Your task to perform on an android device: turn off location history Image 0: 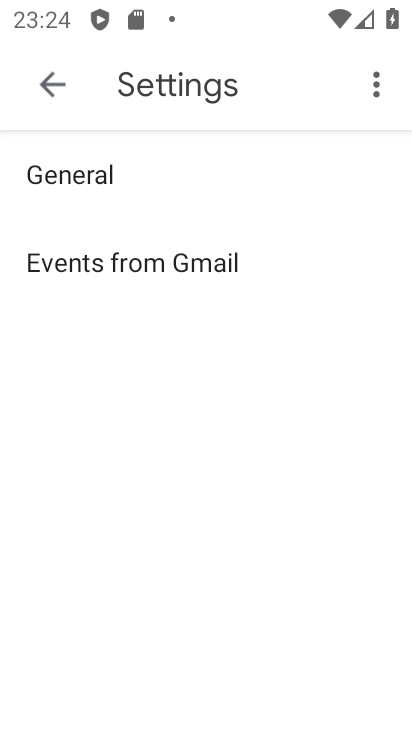
Step 0: press home button
Your task to perform on an android device: turn off location history Image 1: 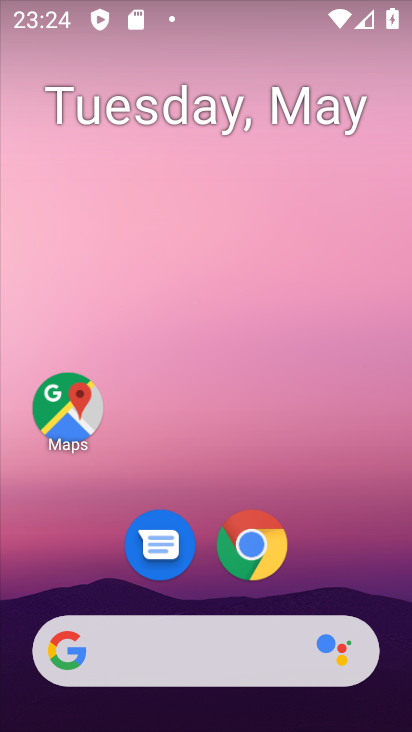
Step 1: drag from (207, 588) to (222, 116)
Your task to perform on an android device: turn off location history Image 2: 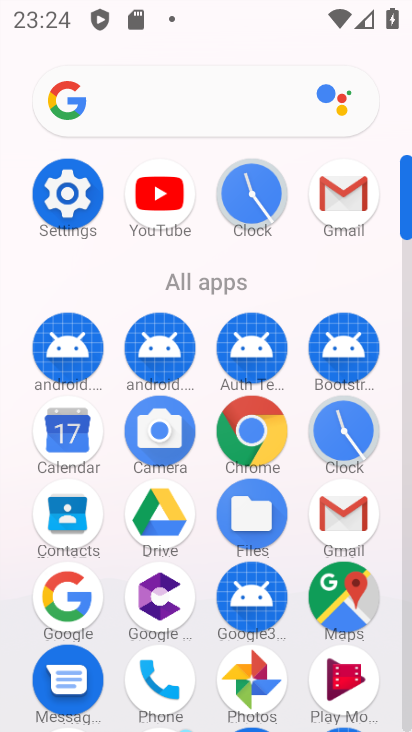
Step 2: click (74, 193)
Your task to perform on an android device: turn off location history Image 3: 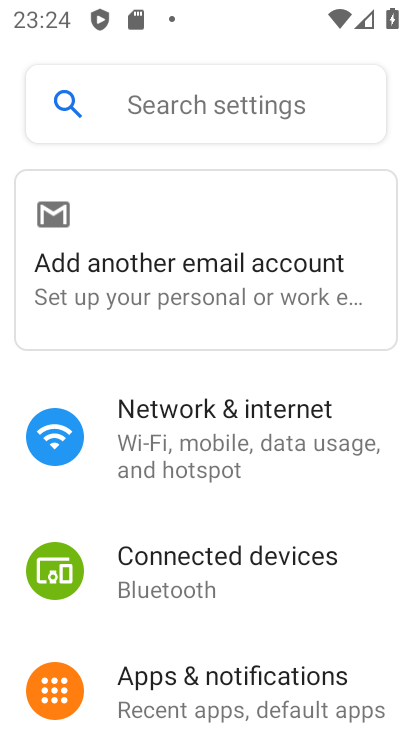
Step 3: drag from (210, 605) to (245, 154)
Your task to perform on an android device: turn off location history Image 4: 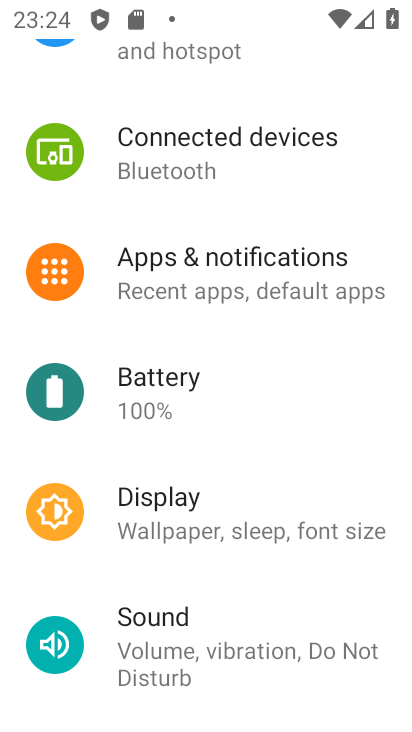
Step 4: drag from (217, 603) to (284, 154)
Your task to perform on an android device: turn off location history Image 5: 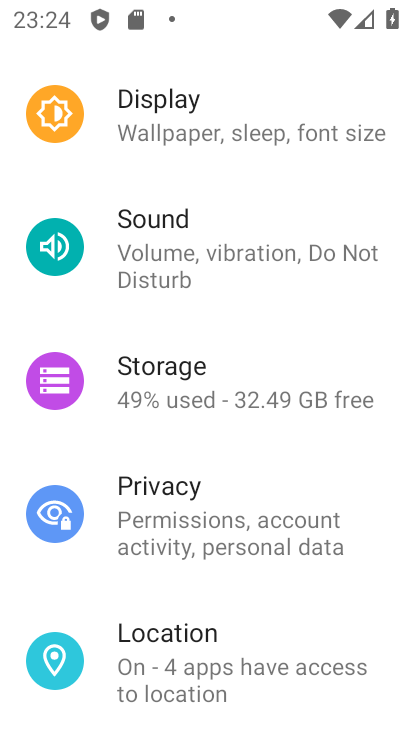
Step 5: click (184, 676)
Your task to perform on an android device: turn off location history Image 6: 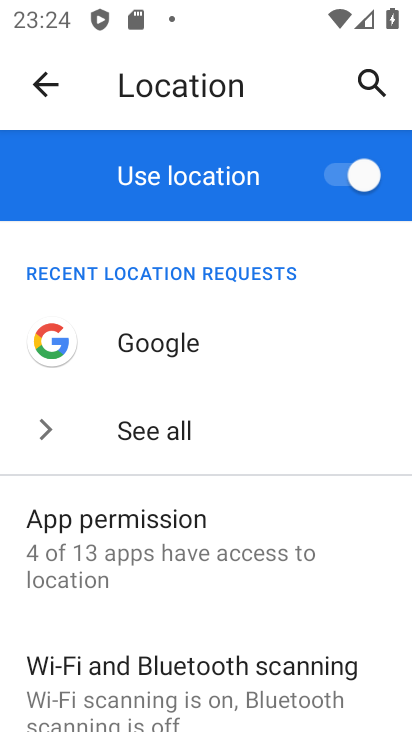
Step 6: drag from (217, 492) to (253, 198)
Your task to perform on an android device: turn off location history Image 7: 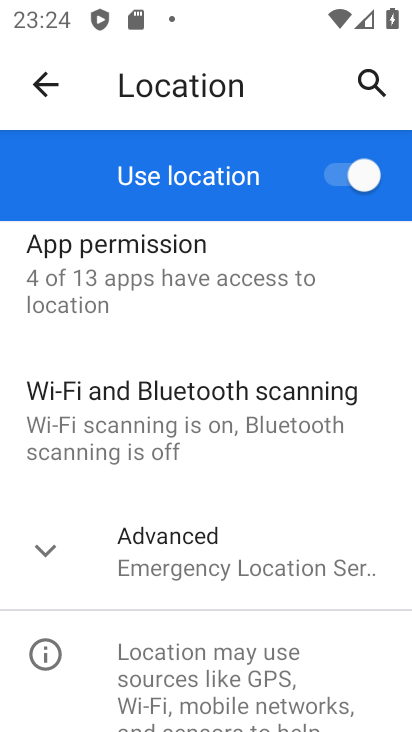
Step 7: click (42, 547)
Your task to perform on an android device: turn off location history Image 8: 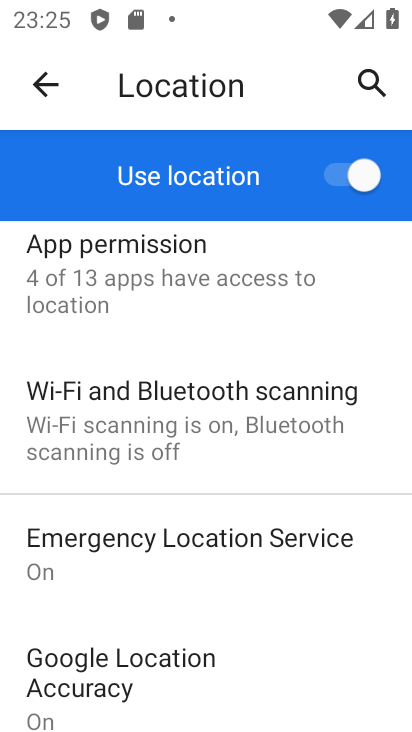
Step 8: drag from (196, 682) to (223, 429)
Your task to perform on an android device: turn off location history Image 9: 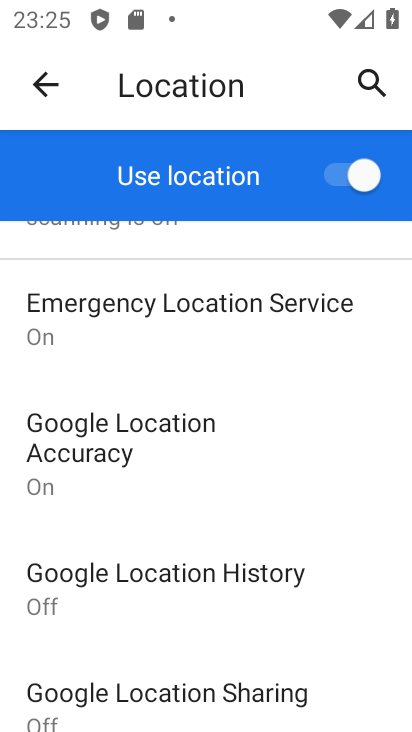
Step 9: click (158, 573)
Your task to perform on an android device: turn off location history Image 10: 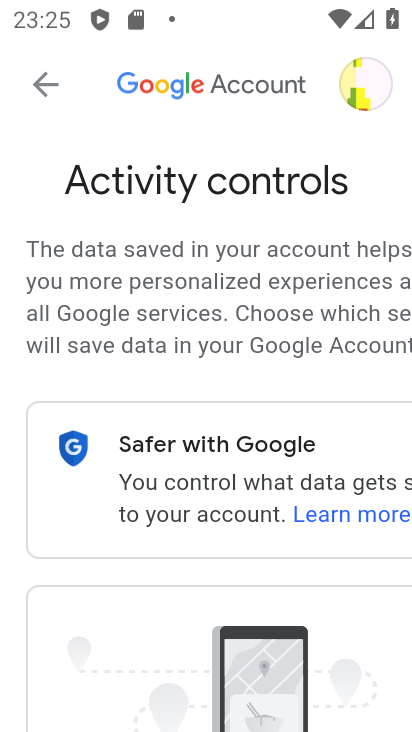
Step 10: task complete